Your task to perform on an android device: Open Youtube and go to the subscriptions tab Image 0: 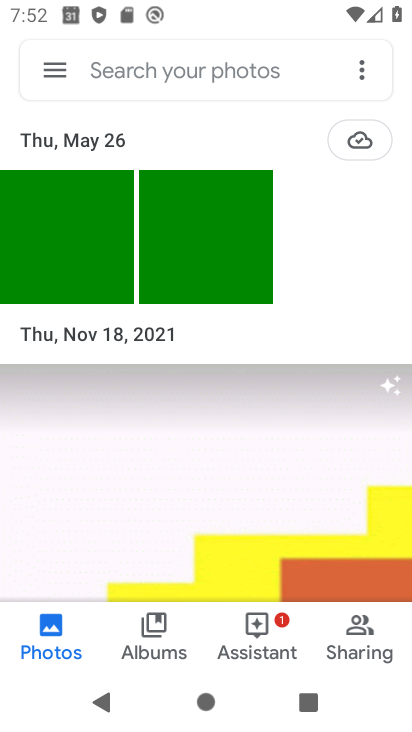
Step 0: press home button
Your task to perform on an android device: Open Youtube and go to the subscriptions tab Image 1: 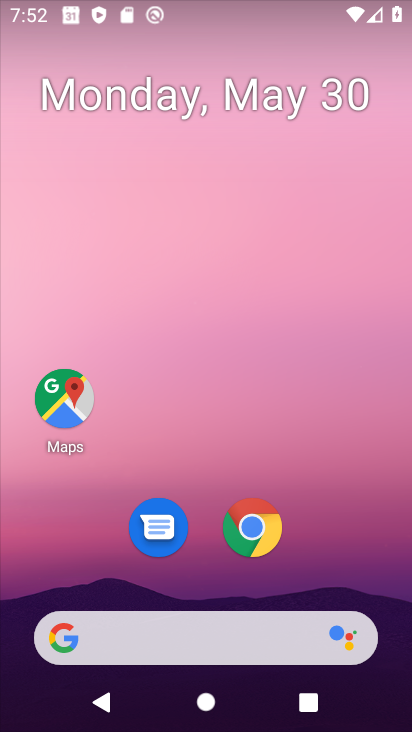
Step 1: drag from (328, 581) to (389, 0)
Your task to perform on an android device: Open Youtube and go to the subscriptions tab Image 2: 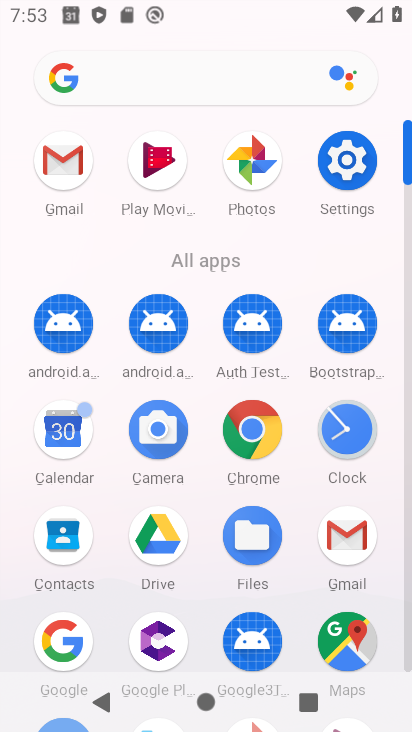
Step 2: drag from (110, 594) to (119, 158)
Your task to perform on an android device: Open Youtube and go to the subscriptions tab Image 3: 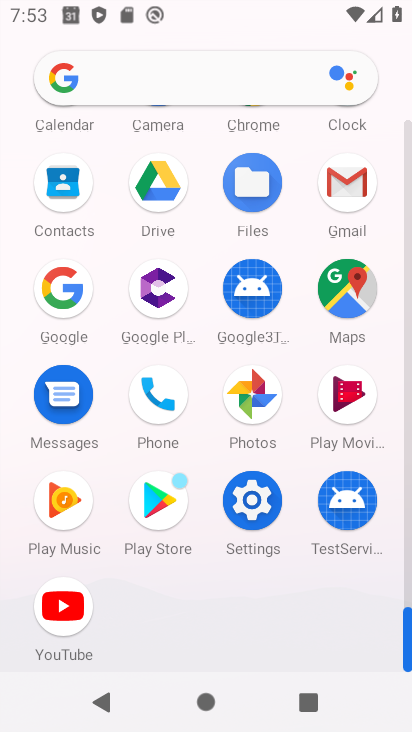
Step 3: click (53, 604)
Your task to perform on an android device: Open Youtube and go to the subscriptions tab Image 4: 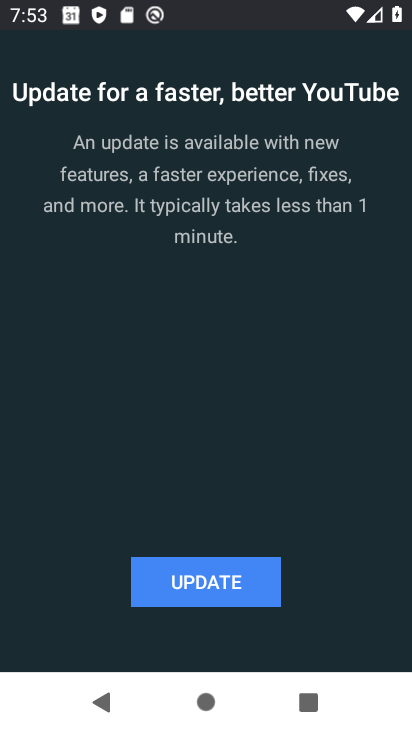
Step 4: click (207, 573)
Your task to perform on an android device: Open Youtube and go to the subscriptions tab Image 5: 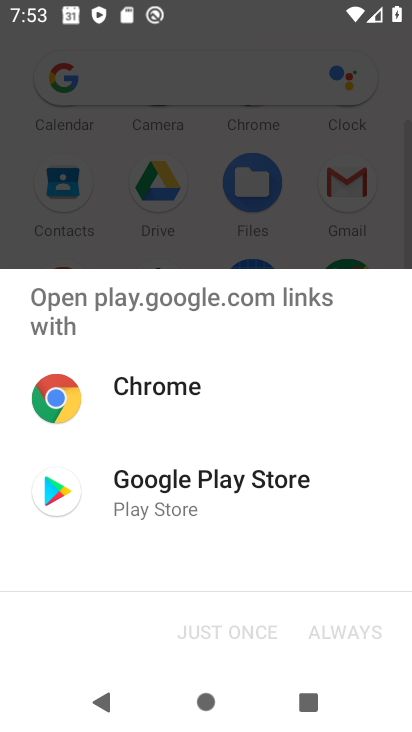
Step 5: click (144, 492)
Your task to perform on an android device: Open Youtube and go to the subscriptions tab Image 6: 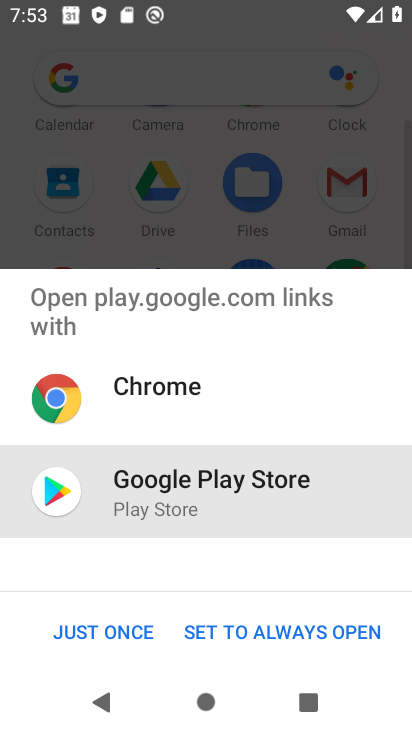
Step 6: click (121, 620)
Your task to perform on an android device: Open Youtube and go to the subscriptions tab Image 7: 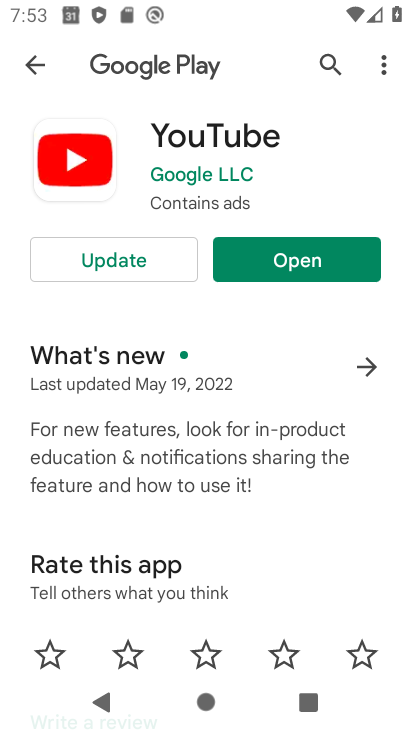
Step 7: click (146, 265)
Your task to perform on an android device: Open Youtube and go to the subscriptions tab Image 8: 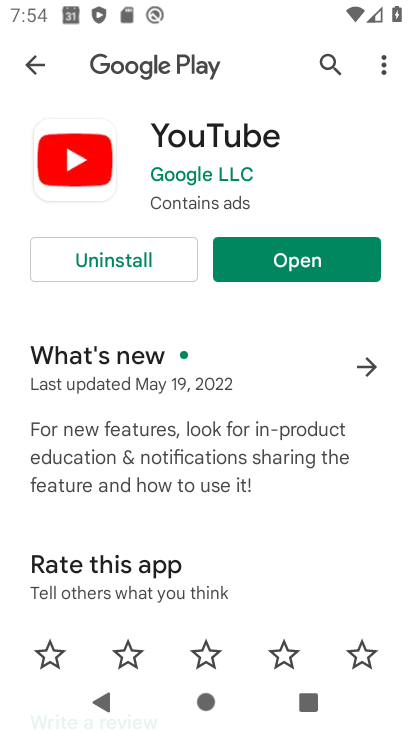
Step 8: click (301, 257)
Your task to perform on an android device: Open Youtube and go to the subscriptions tab Image 9: 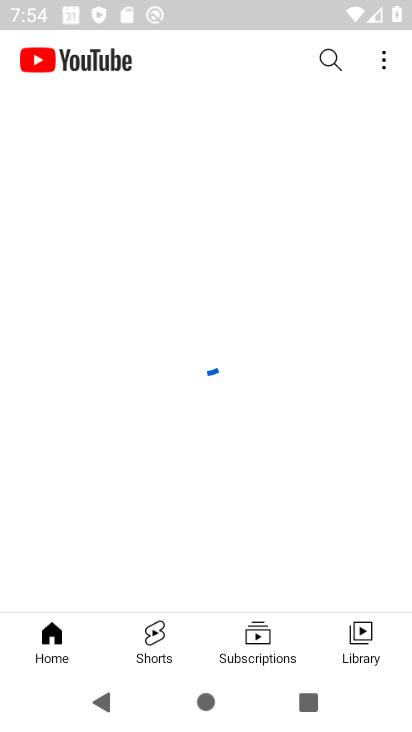
Step 9: click (276, 643)
Your task to perform on an android device: Open Youtube and go to the subscriptions tab Image 10: 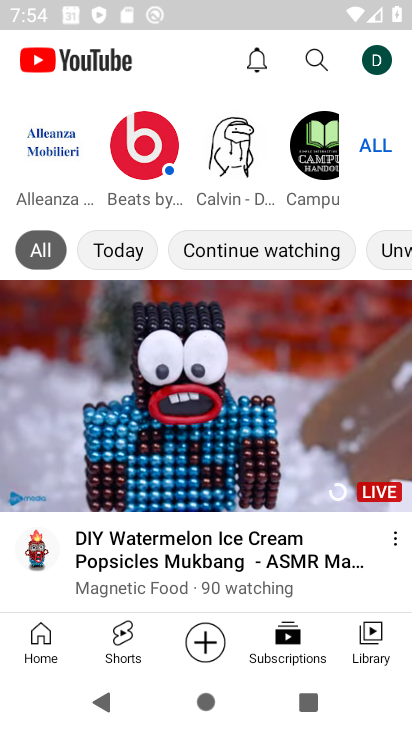
Step 10: task complete